Your task to perform on an android device: Go to privacy settings Image 0: 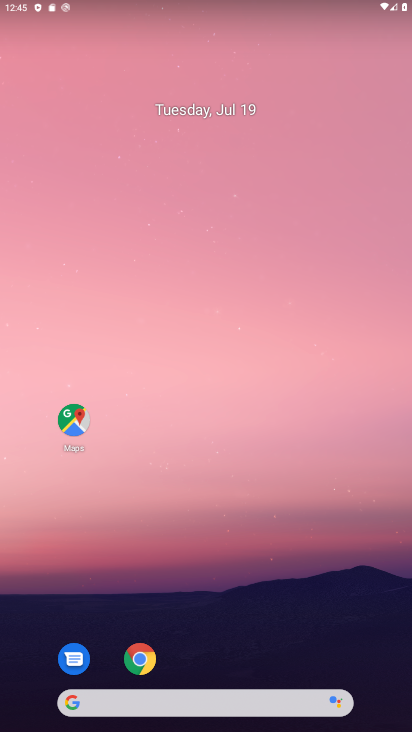
Step 0: drag from (263, 672) to (251, 257)
Your task to perform on an android device: Go to privacy settings Image 1: 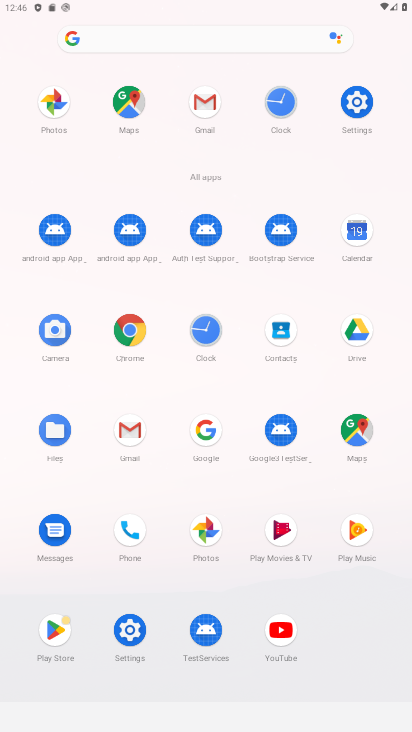
Step 1: click (121, 631)
Your task to perform on an android device: Go to privacy settings Image 2: 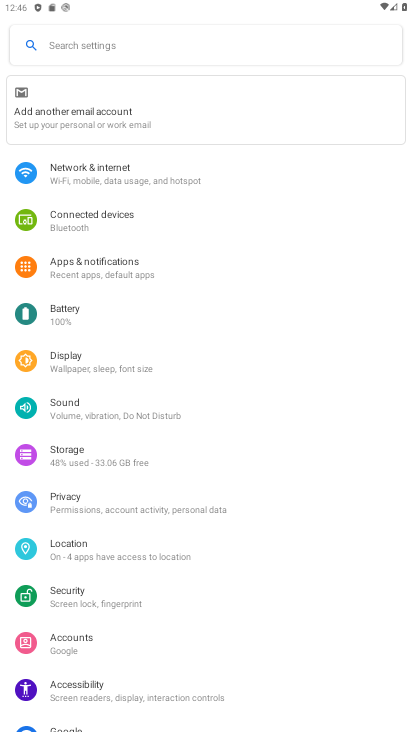
Step 2: click (94, 506)
Your task to perform on an android device: Go to privacy settings Image 3: 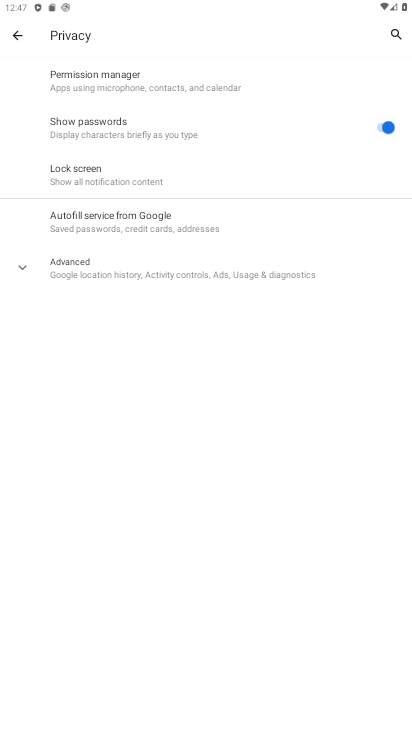
Step 3: task complete